Your task to perform on an android device: What's on my calendar tomorrow? Image 0: 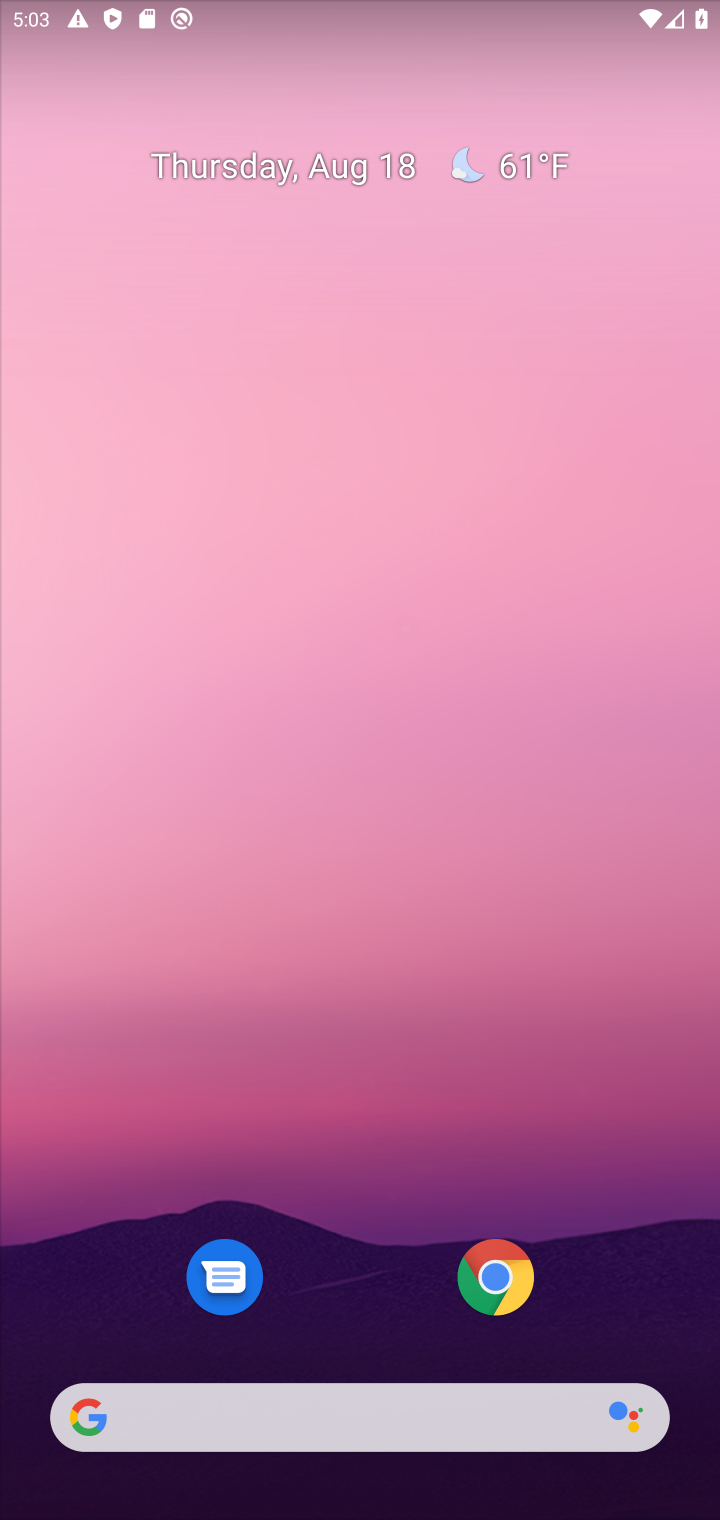
Step 0: drag from (480, 915) to (685, 6)
Your task to perform on an android device: What's on my calendar tomorrow? Image 1: 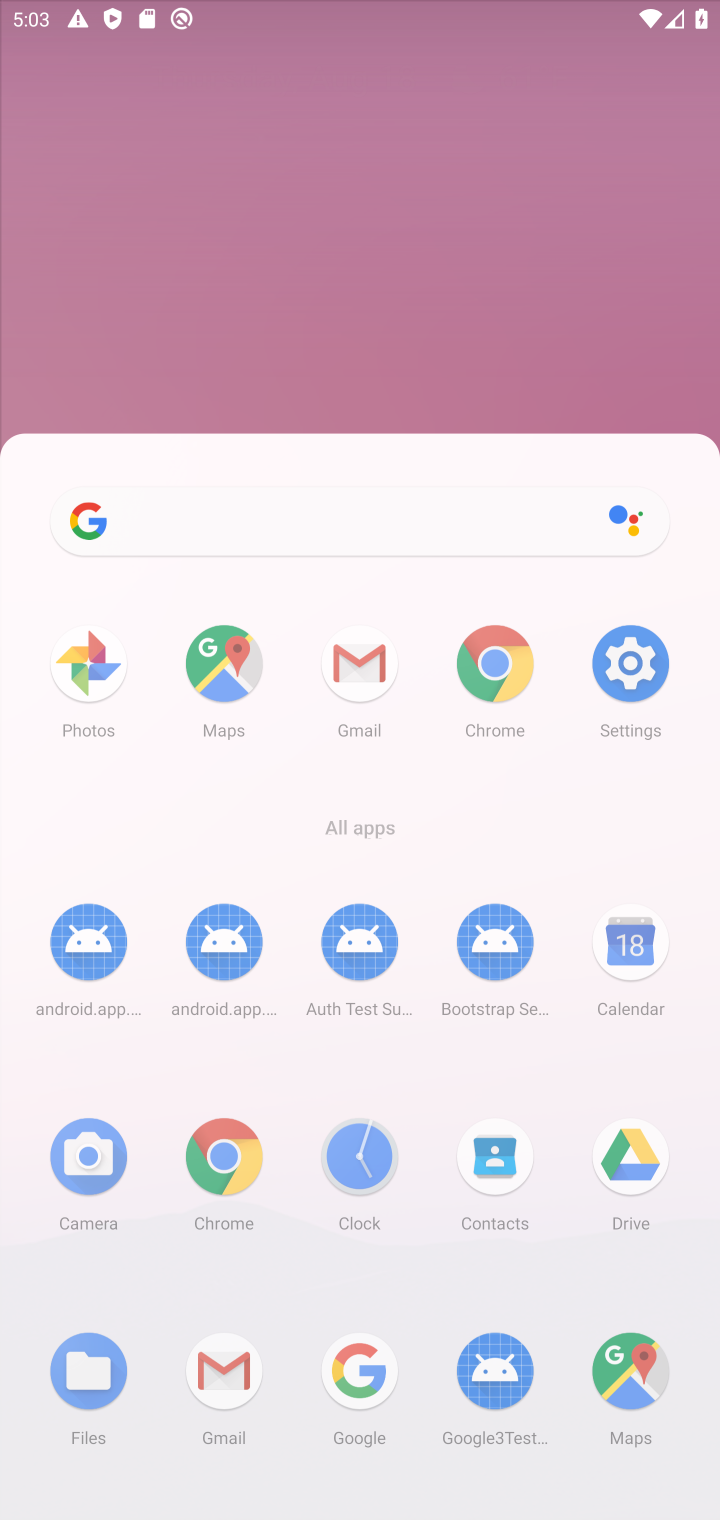
Step 1: task complete